Your task to perform on an android device: turn on bluetooth scan Image 0: 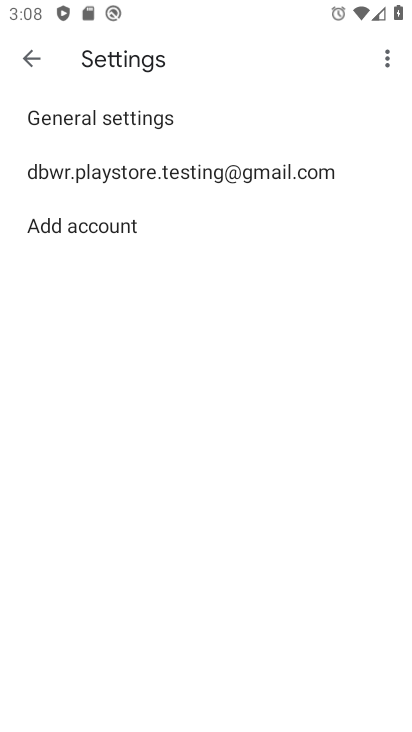
Step 0: press home button
Your task to perform on an android device: turn on bluetooth scan Image 1: 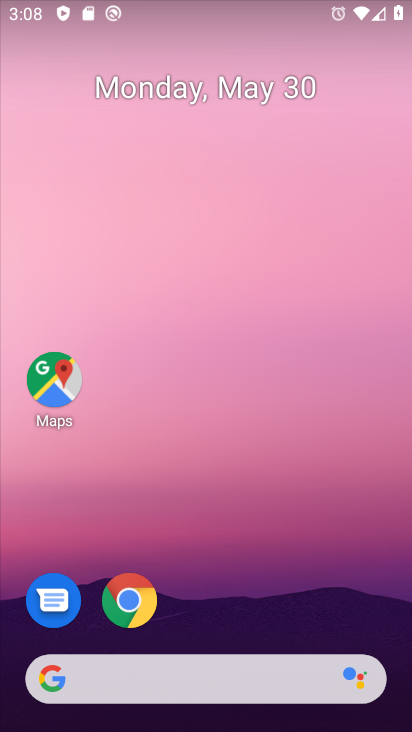
Step 1: drag from (215, 726) to (237, 4)
Your task to perform on an android device: turn on bluetooth scan Image 2: 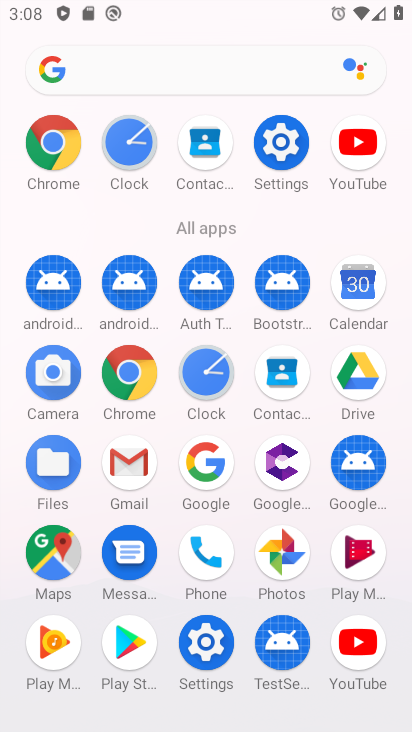
Step 2: click (281, 145)
Your task to perform on an android device: turn on bluetooth scan Image 3: 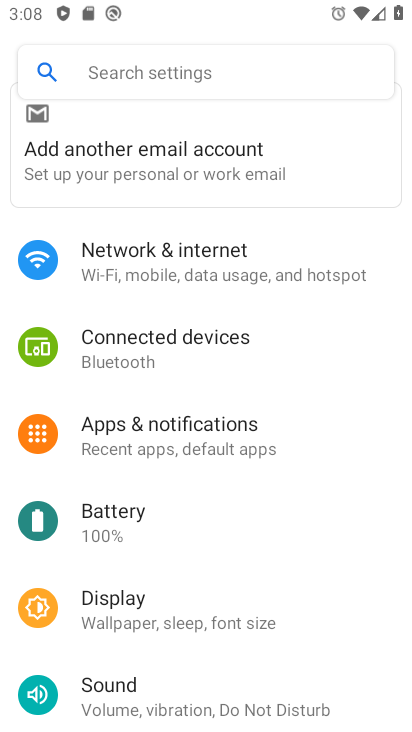
Step 3: drag from (172, 682) to (188, 249)
Your task to perform on an android device: turn on bluetooth scan Image 4: 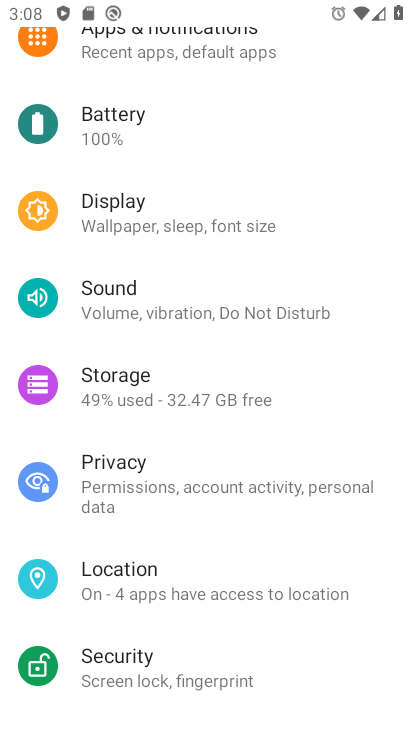
Step 4: click (138, 582)
Your task to perform on an android device: turn on bluetooth scan Image 5: 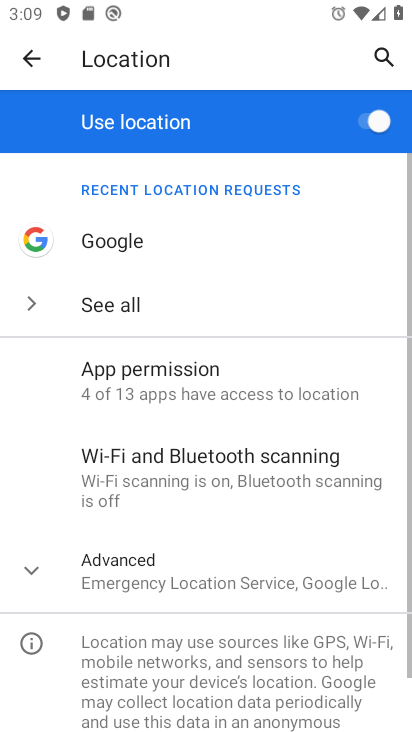
Step 5: click (153, 465)
Your task to perform on an android device: turn on bluetooth scan Image 6: 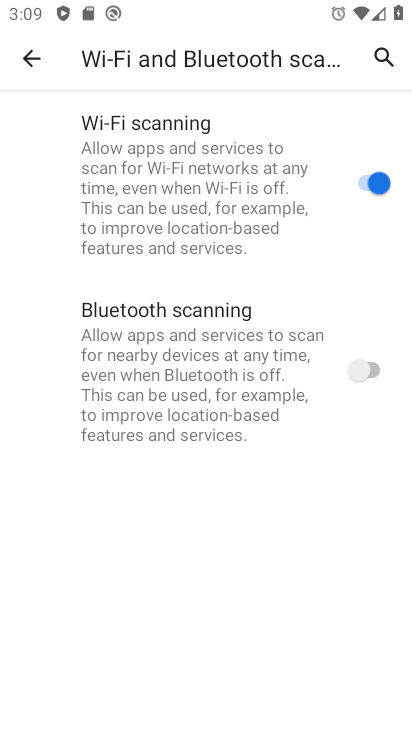
Step 6: click (369, 372)
Your task to perform on an android device: turn on bluetooth scan Image 7: 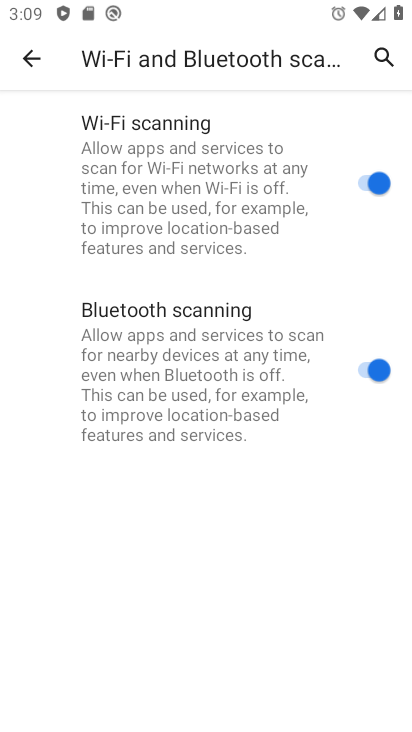
Step 7: task complete